Your task to perform on an android device: Search for sushi restaurants on Maps Image 0: 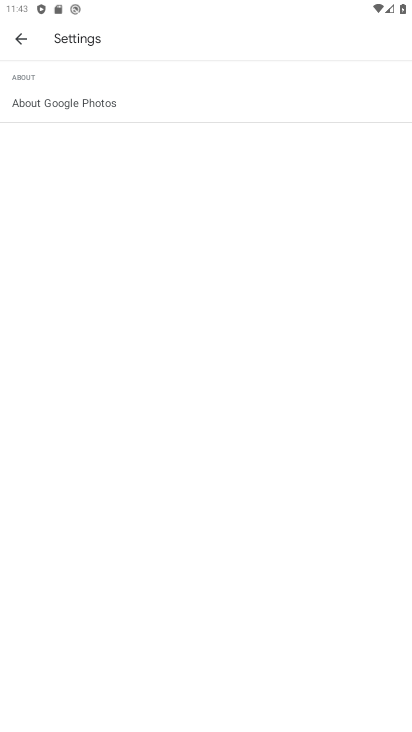
Step 0: press home button
Your task to perform on an android device: Search for sushi restaurants on Maps Image 1: 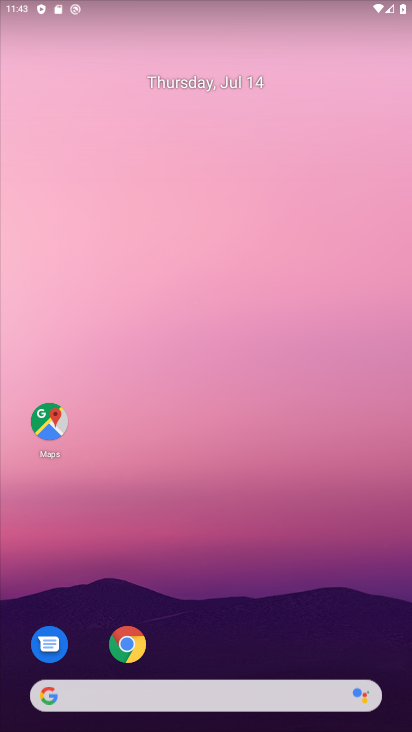
Step 1: drag from (245, 618) to (347, 143)
Your task to perform on an android device: Search for sushi restaurants on Maps Image 2: 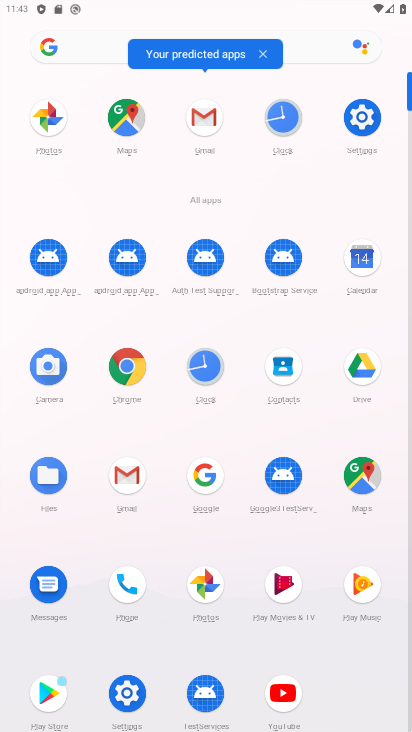
Step 2: click (362, 467)
Your task to perform on an android device: Search for sushi restaurants on Maps Image 3: 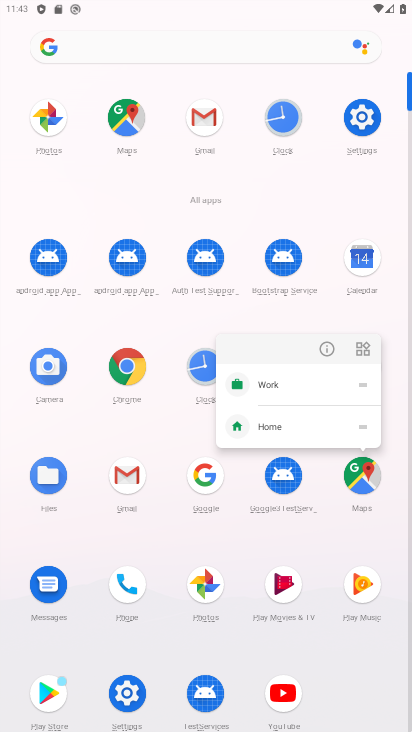
Step 3: click (351, 477)
Your task to perform on an android device: Search for sushi restaurants on Maps Image 4: 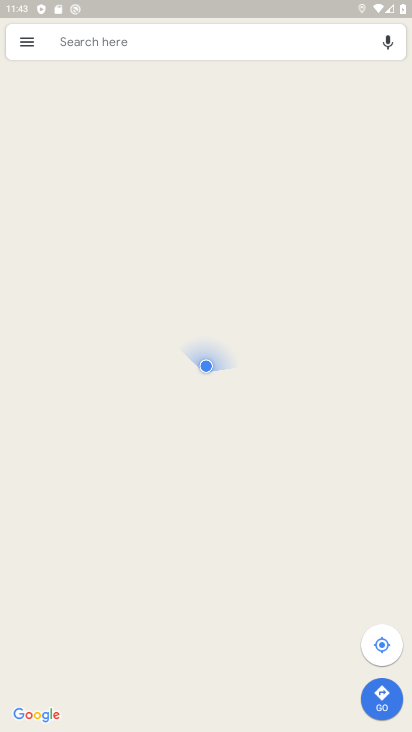
Step 4: click (169, 40)
Your task to perform on an android device: Search for sushi restaurants on Maps Image 5: 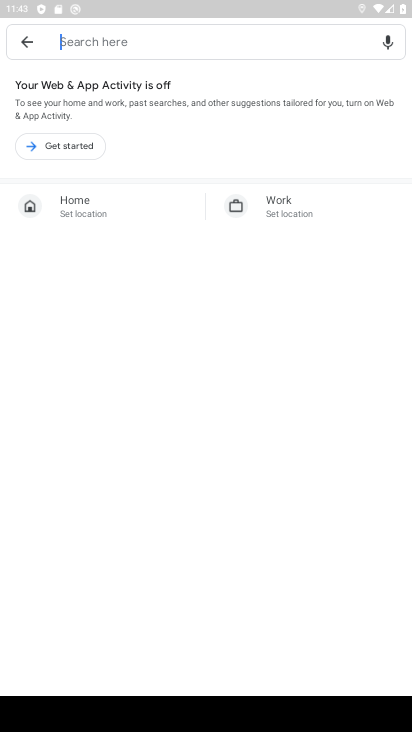
Step 5: type "sushi restaurants"
Your task to perform on an android device: Search for sushi restaurants on Maps Image 6: 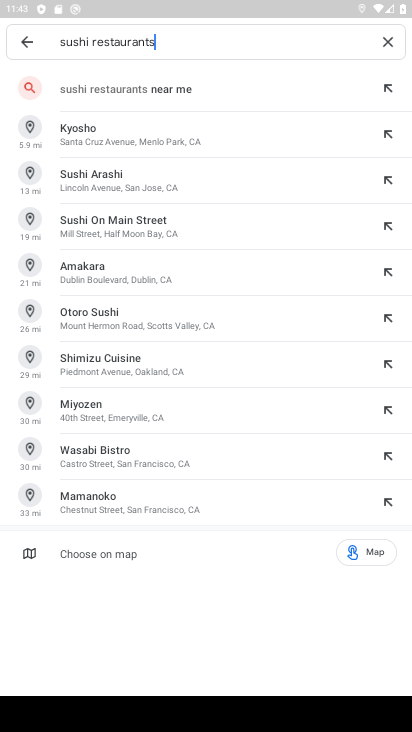
Step 6: click (198, 92)
Your task to perform on an android device: Search for sushi restaurants on Maps Image 7: 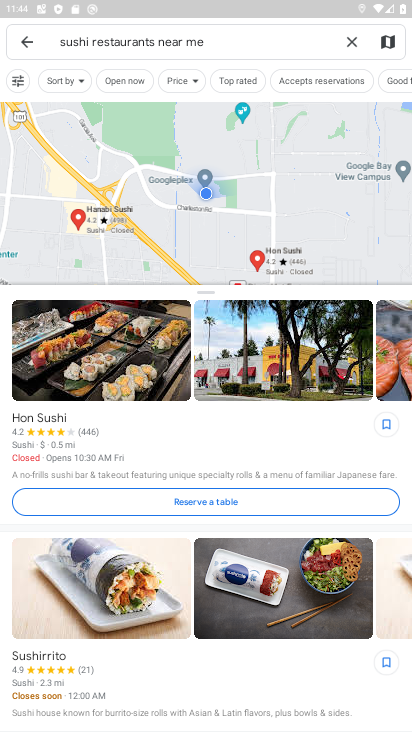
Step 7: task complete